Your task to perform on an android device: toggle airplane mode Image 0: 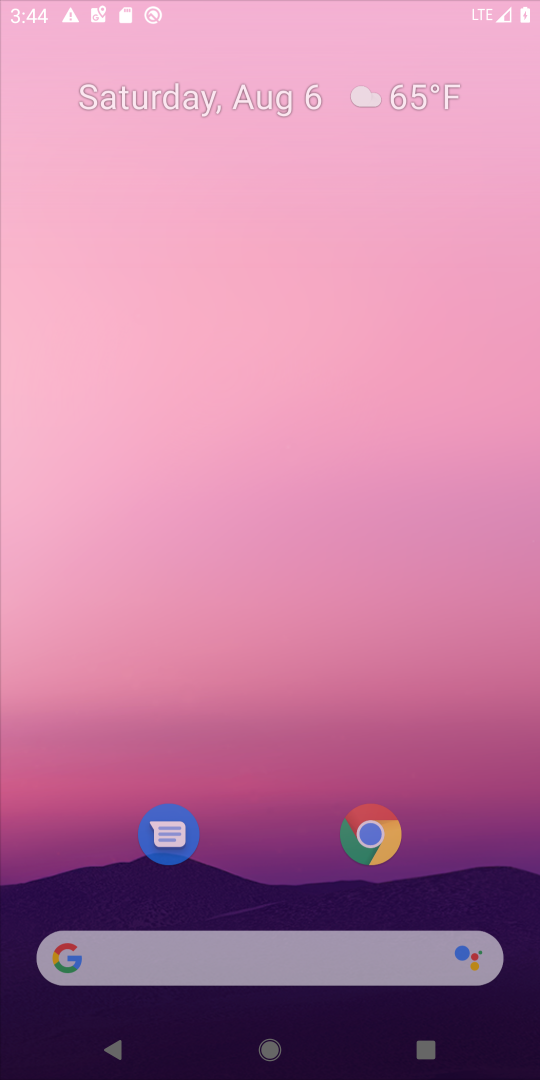
Step 0: click (310, 178)
Your task to perform on an android device: toggle airplane mode Image 1: 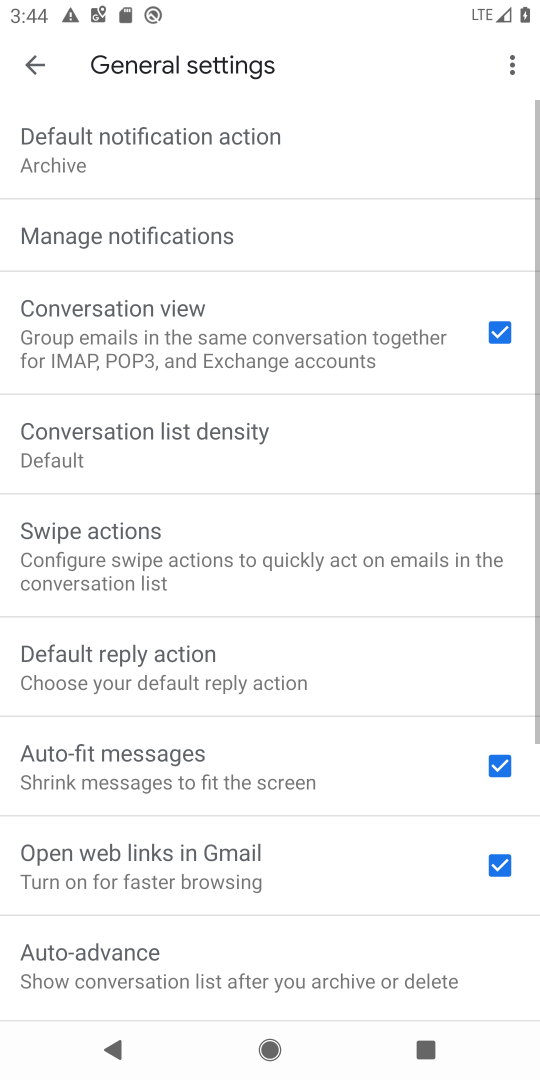
Step 1: press back button
Your task to perform on an android device: toggle airplane mode Image 2: 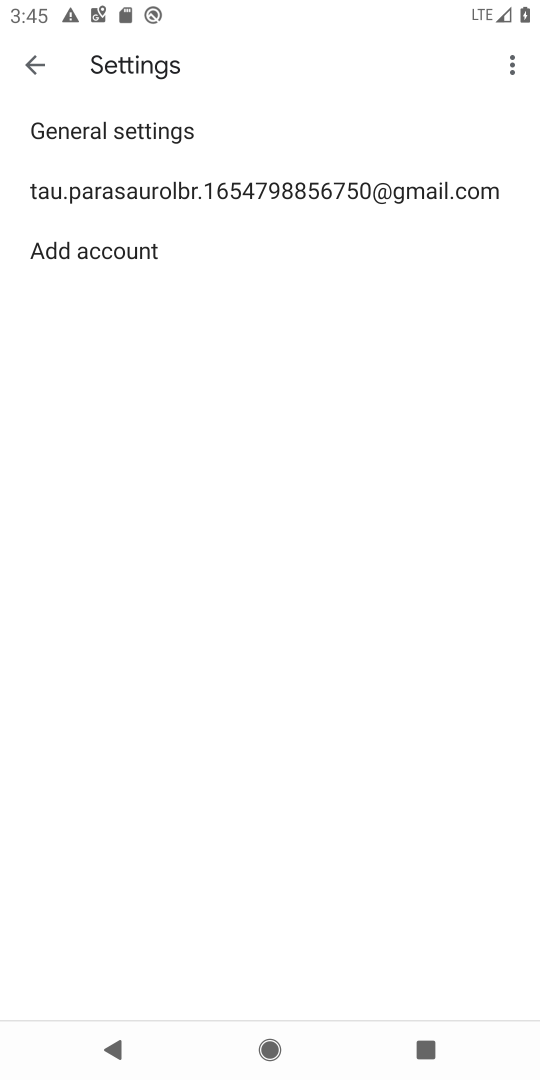
Step 2: press back button
Your task to perform on an android device: toggle airplane mode Image 3: 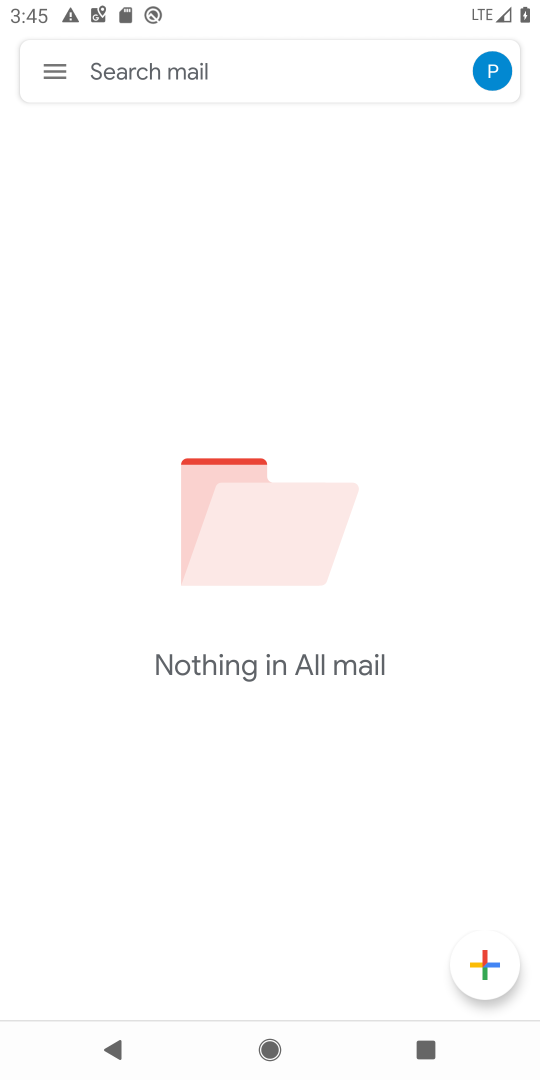
Step 3: press back button
Your task to perform on an android device: toggle airplane mode Image 4: 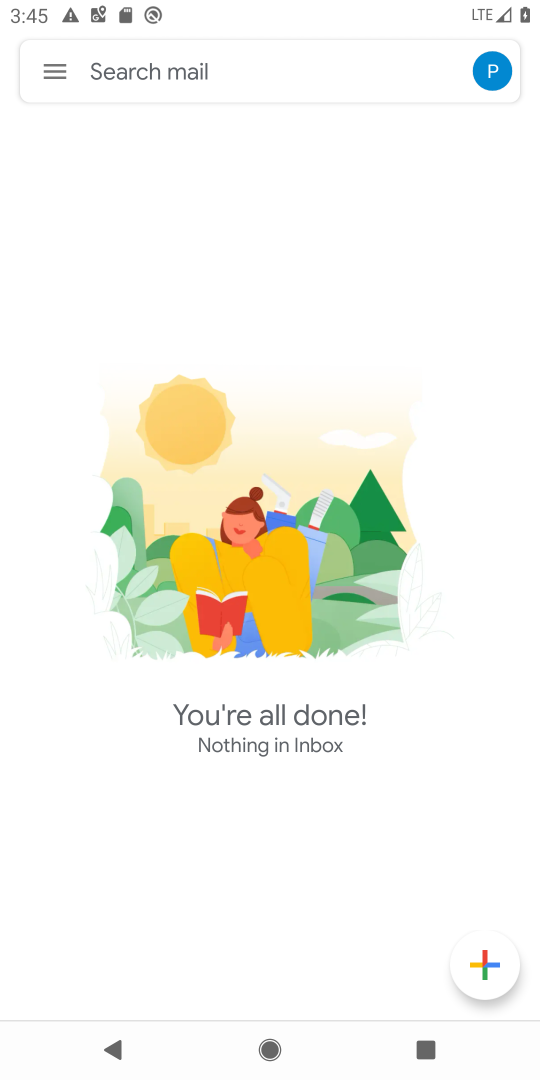
Step 4: press back button
Your task to perform on an android device: toggle airplane mode Image 5: 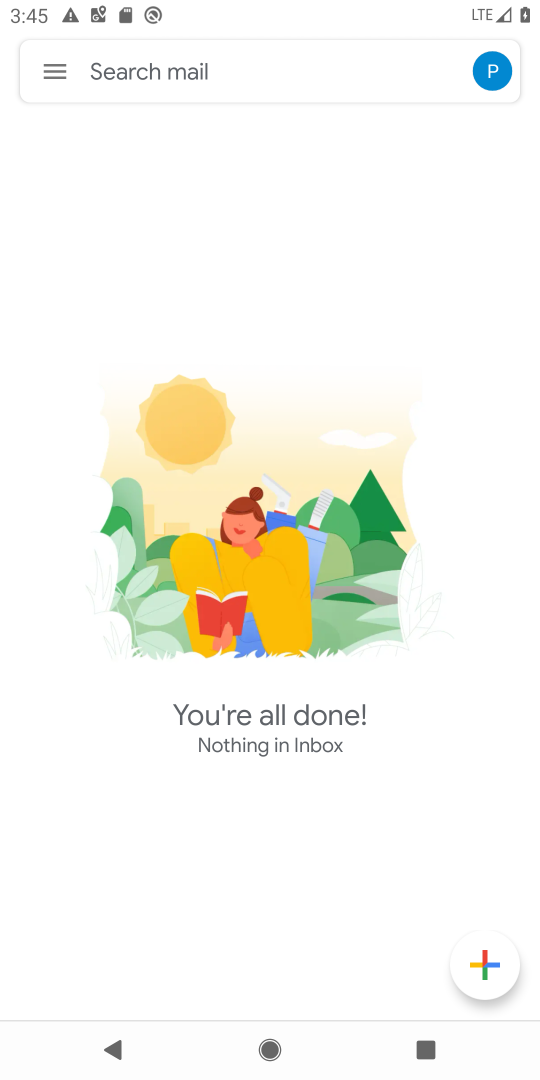
Step 5: drag from (423, 295) to (265, 912)
Your task to perform on an android device: toggle airplane mode Image 6: 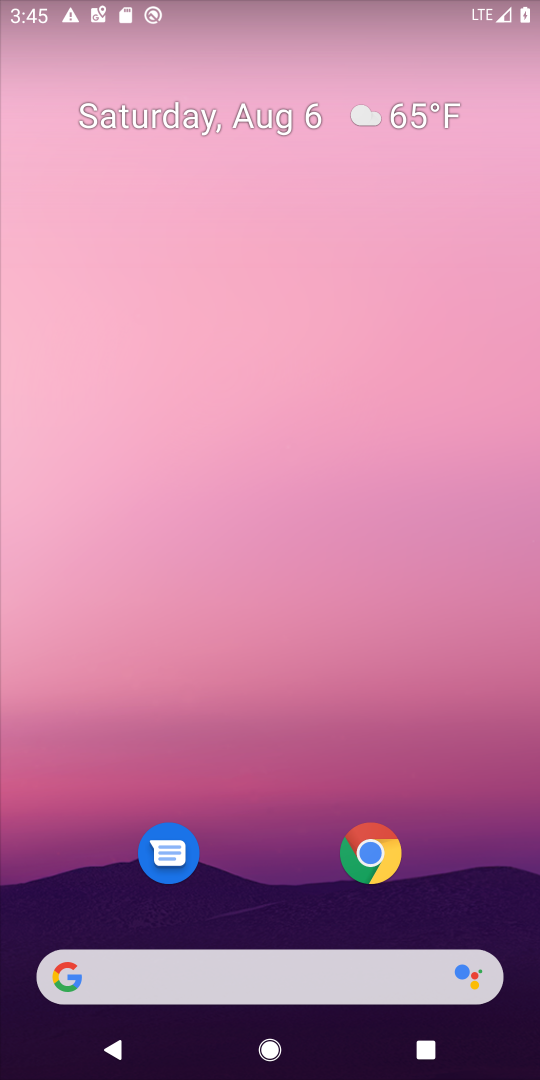
Step 6: drag from (480, 4) to (342, 969)
Your task to perform on an android device: toggle airplane mode Image 7: 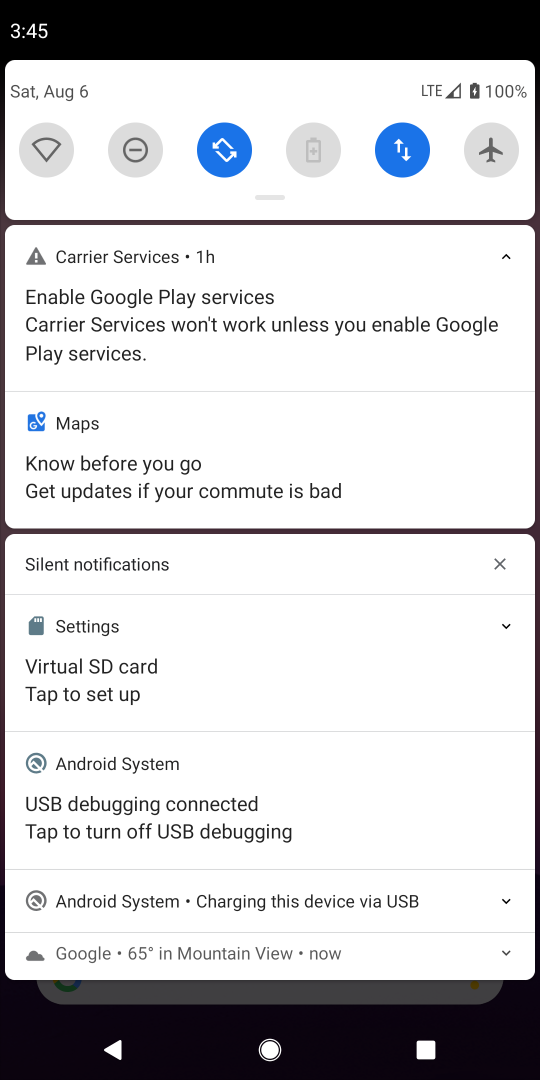
Step 7: click (489, 145)
Your task to perform on an android device: toggle airplane mode Image 8: 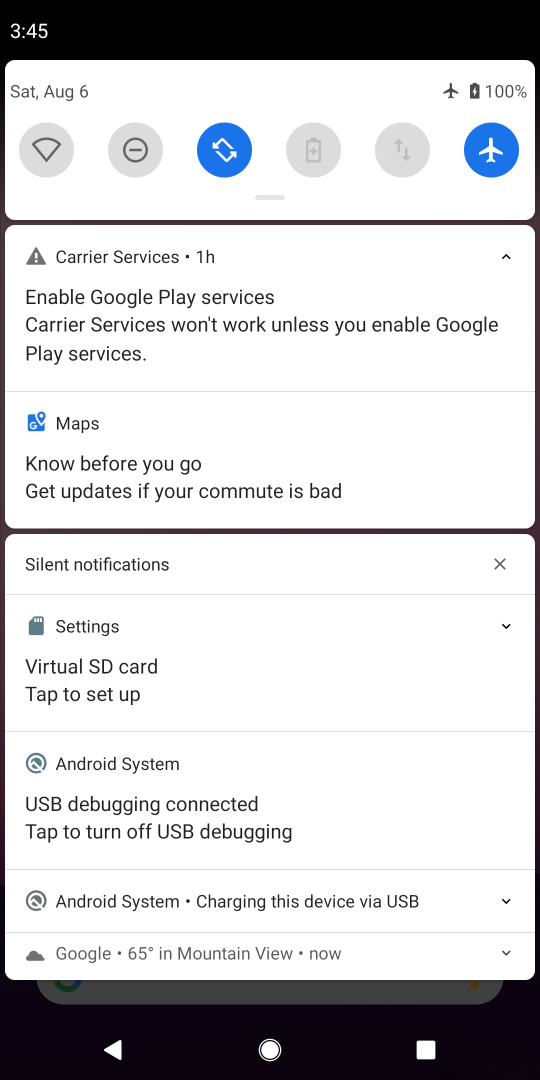
Step 8: task complete